Your task to perform on an android device: Search for the new nike air max 270 on Nike.com Image 0: 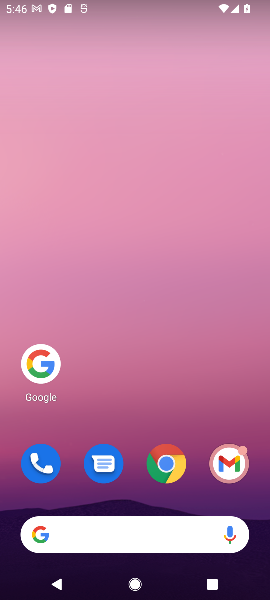
Step 0: click (40, 352)
Your task to perform on an android device: Search for the new nike air max 270 on Nike.com Image 1: 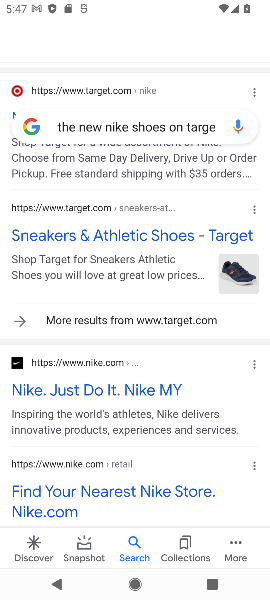
Step 1: click (143, 114)
Your task to perform on an android device: Search for the new nike air max 270 on Nike.com Image 2: 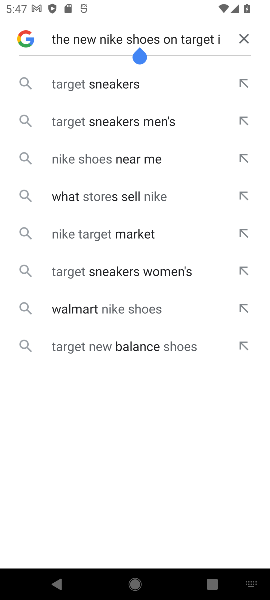
Step 2: click (243, 28)
Your task to perform on an android device: Search for the new nike air max 270 on Nike.com Image 3: 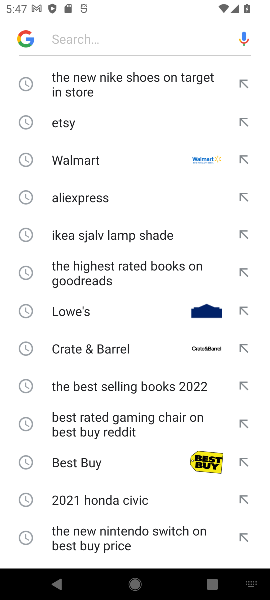
Step 3: click (114, 39)
Your task to perform on an android device: Search for the new nike air max 270 on Nike.com Image 4: 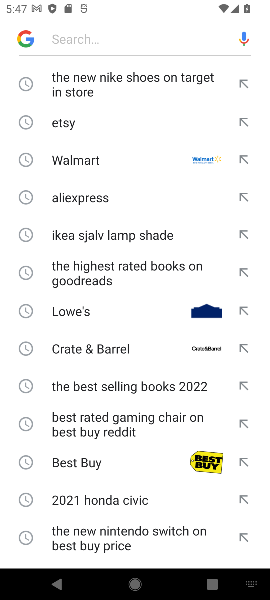
Step 4: type " new nike air max 270 on Nike.com "
Your task to perform on an android device: Search for the new nike air max 270 on Nike.com Image 5: 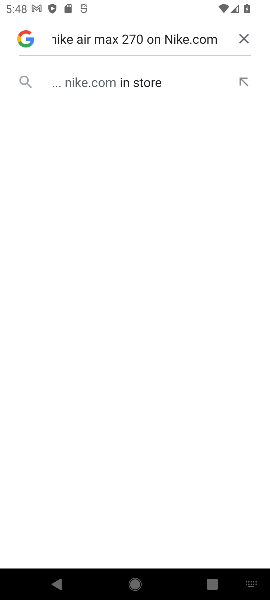
Step 5: click (160, 82)
Your task to perform on an android device: Search for the new nike air max 270 on Nike.com Image 6: 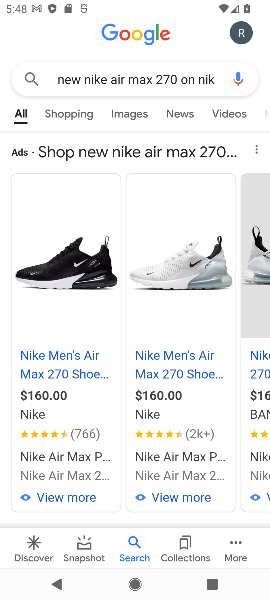
Step 6: task complete